Your task to perform on an android device: turn on data saver in the chrome app Image 0: 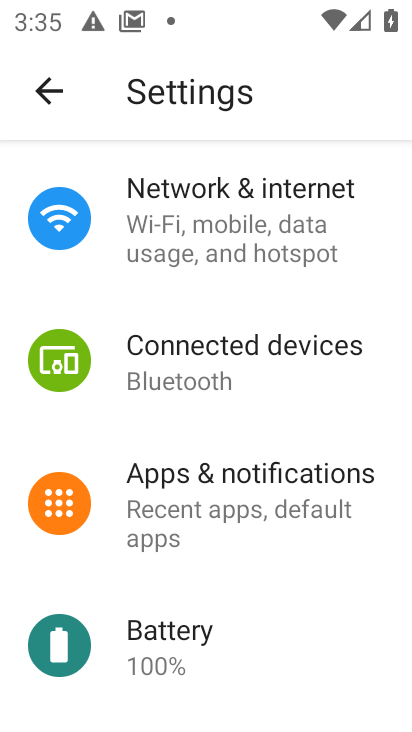
Step 0: press home button
Your task to perform on an android device: turn on data saver in the chrome app Image 1: 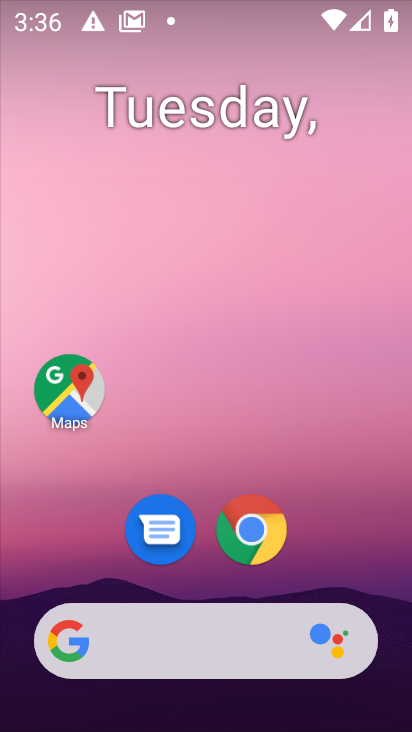
Step 1: click (263, 513)
Your task to perform on an android device: turn on data saver in the chrome app Image 2: 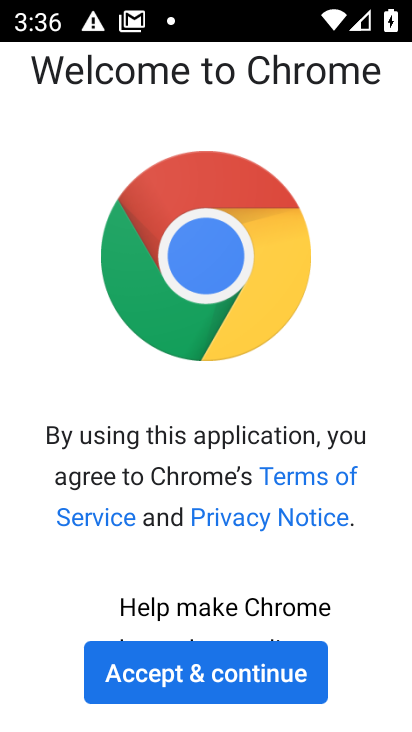
Step 2: click (294, 676)
Your task to perform on an android device: turn on data saver in the chrome app Image 3: 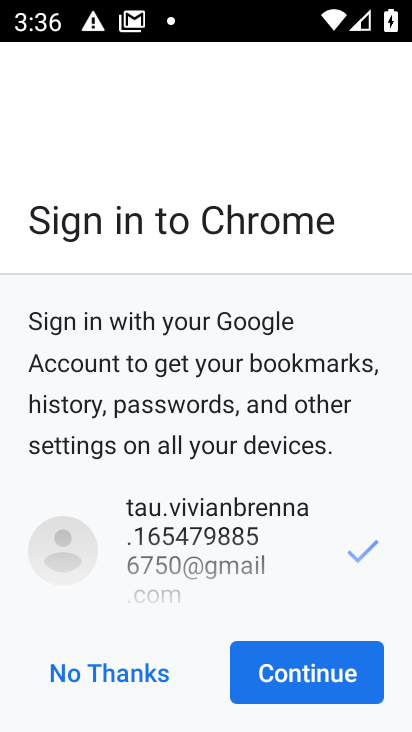
Step 3: click (294, 676)
Your task to perform on an android device: turn on data saver in the chrome app Image 4: 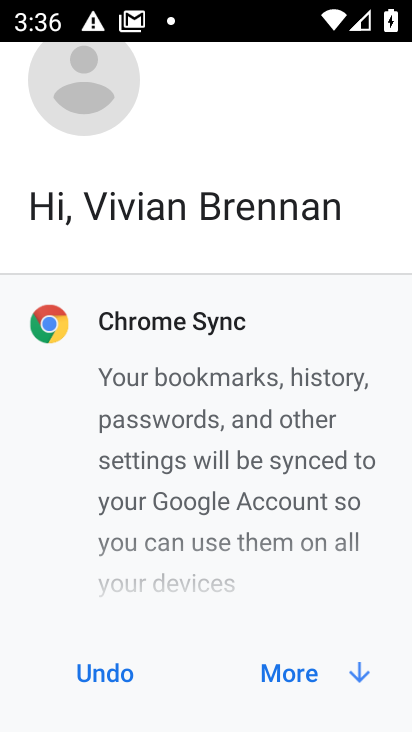
Step 4: click (294, 676)
Your task to perform on an android device: turn on data saver in the chrome app Image 5: 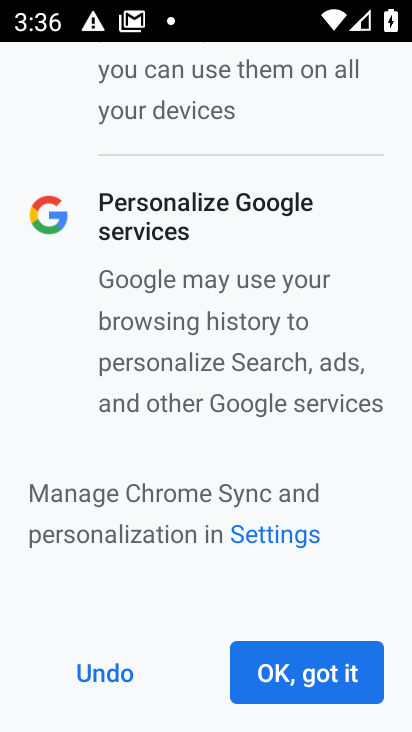
Step 5: click (294, 676)
Your task to perform on an android device: turn on data saver in the chrome app Image 6: 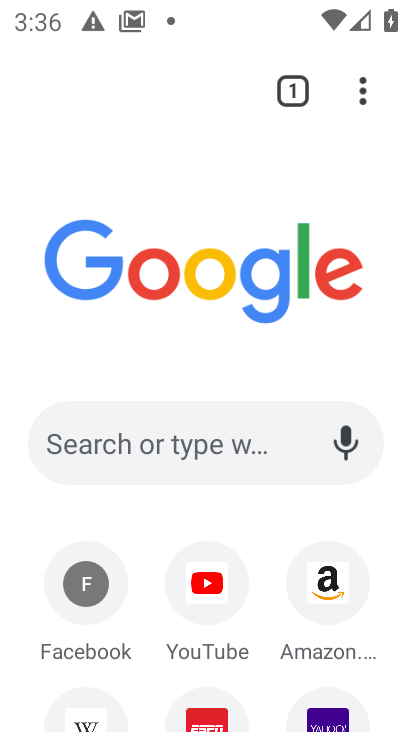
Step 6: click (362, 89)
Your task to perform on an android device: turn on data saver in the chrome app Image 7: 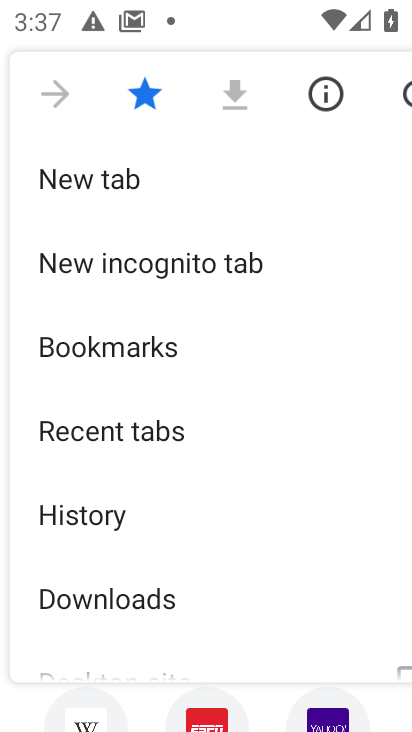
Step 7: drag from (214, 568) to (173, 248)
Your task to perform on an android device: turn on data saver in the chrome app Image 8: 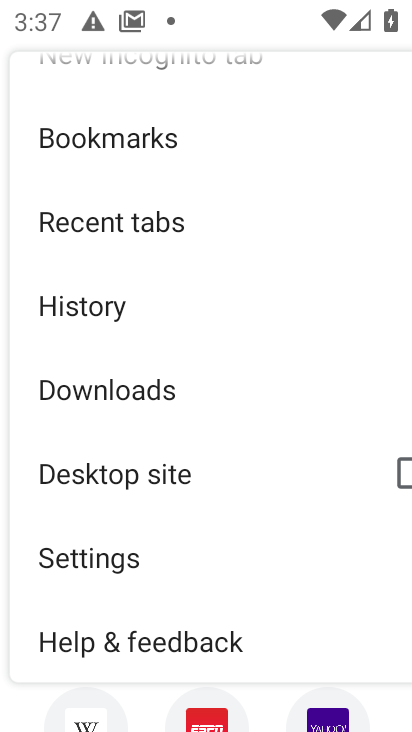
Step 8: click (119, 568)
Your task to perform on an android device: turn on data saver in the chrome app Image 9: 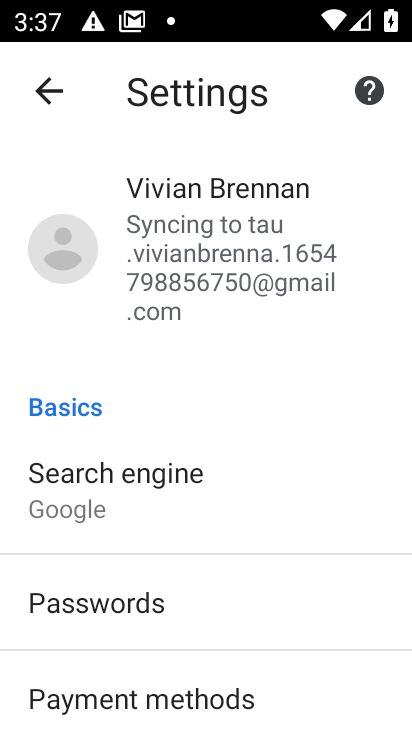
Step 9: drag from (204, 592) to (200, 275)
Your task to perform on an android device: turn on data saver in the chrome app Image 10: 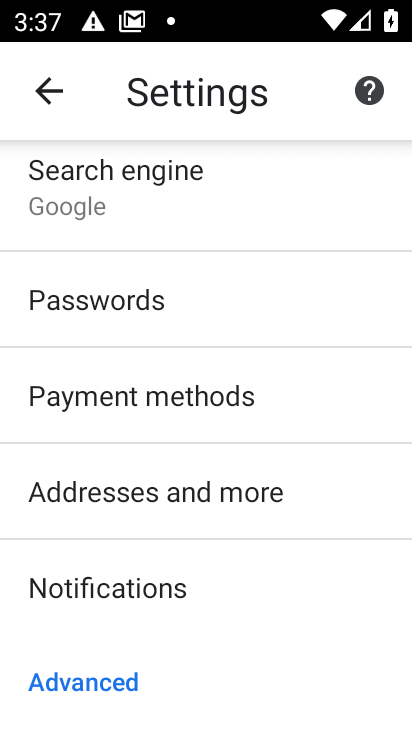
Step 10: drag from (273, 661) to (237, 274)
Your task to perform on an android device: turn on data saver in the chrome app Image 11: 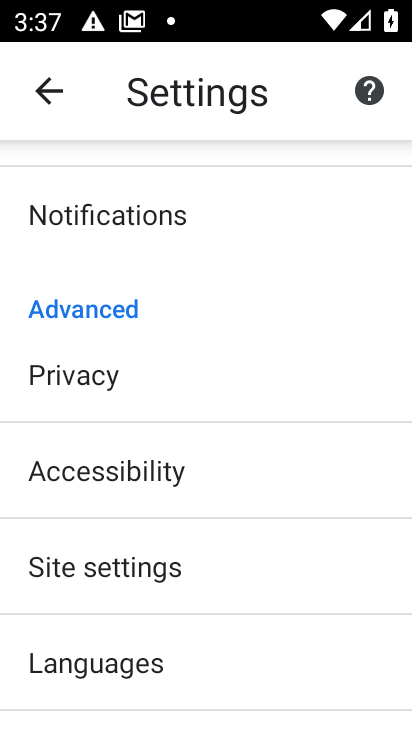
Step 11: drag from (201, 671) to (207, 311)
Your task to perform on an android device: turn on data saver in the chrome app Image 12: 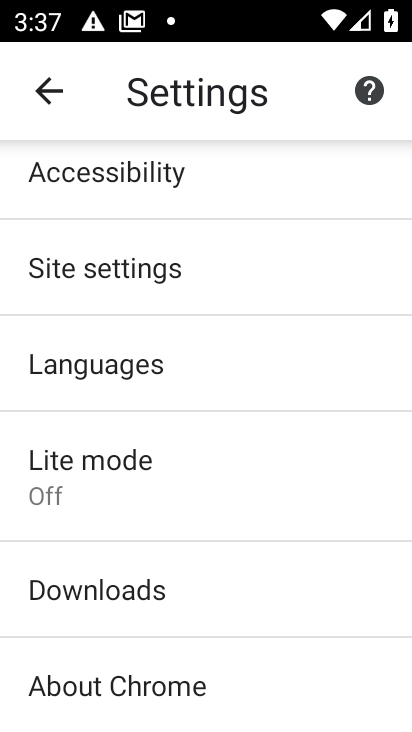
Step 12: click (229, 470)
Your task to perform on an android device: turn on data saver in the chrome app Image 13: 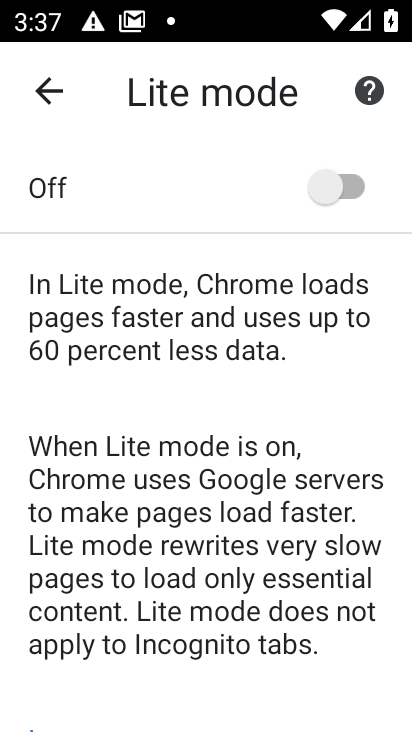
Step 13: click (322, 193)
Your task to perform on an android device: turn on data saver in the chrome app Image 14: 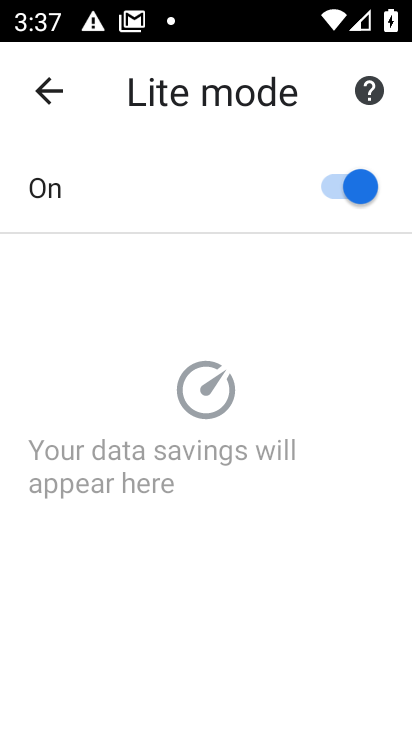
Step 14: task complete